Your task to perform on an android device: remove spam from my inbox in the gmail app Image 0: 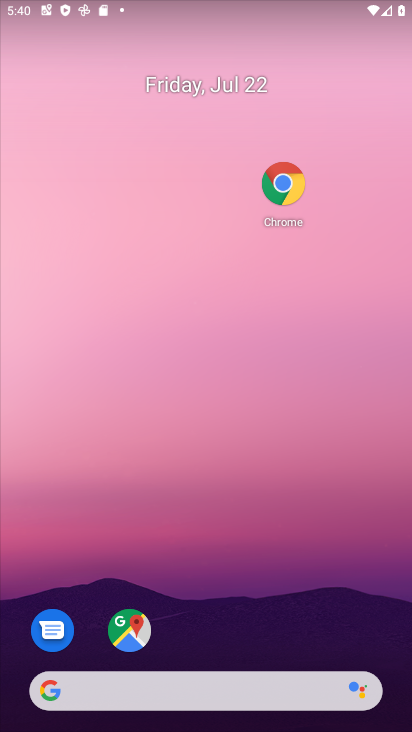
Step 0: drag from (168, 439) to (182, 98)
Your task to perform on an android device: remove spam from my inbox in the gmail app Image 1: 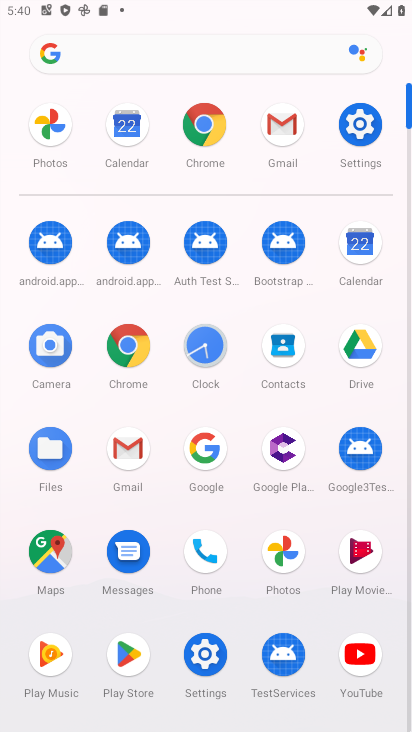
Step 1: click (282, 133)
Your task to perform on an android device: remove spam from my inbox in the gmail app Image 2: 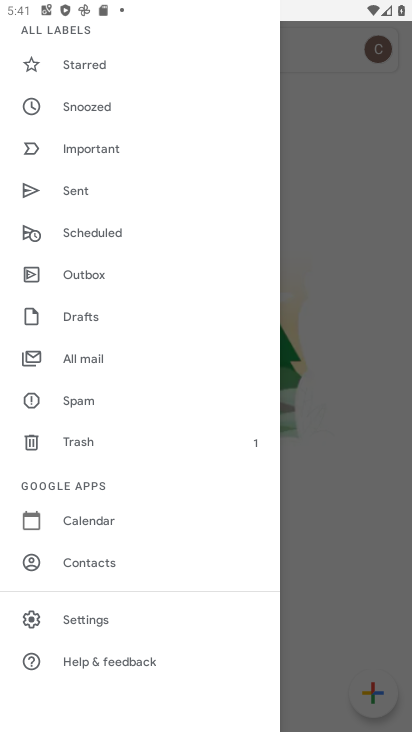
Step 2: click (87, 405)
Your task to perform on an android device: remove spam from my inbox in the gmail app Image 3: 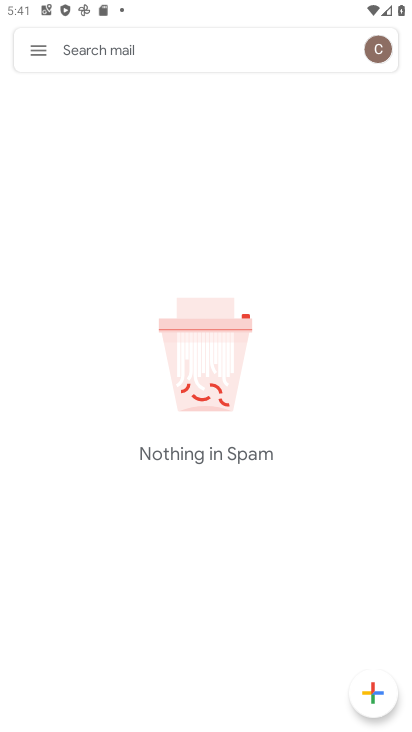
Step 3: task complete